Your task to perform on an android device: turn off notifications in google photos Image 0: 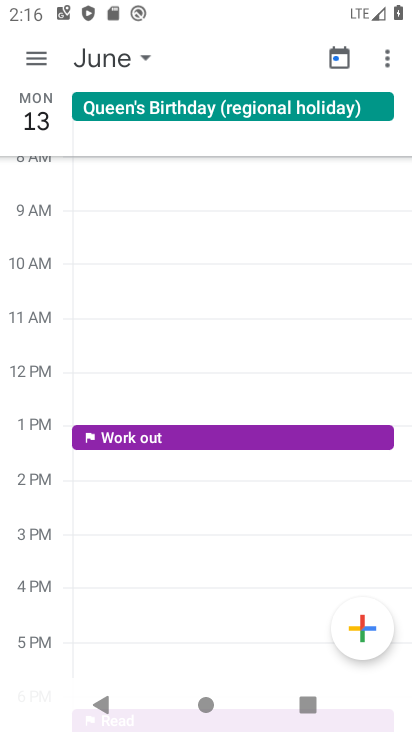
Step 0: press home button
Your task to perform on an android device: turn off notifications in google photos Image 1: 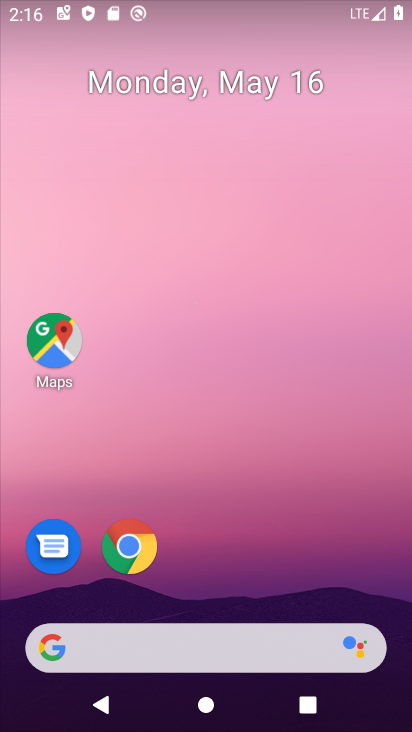
Step 1: drag from (268, 676) to (235, 205)
Your task to perform on an android device: turn off notifications in google photos Image 2: 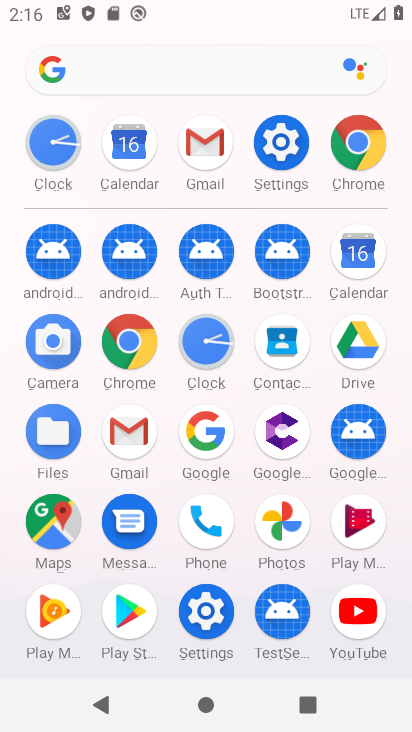
Step 2: click (288, 535)
Your task to perform on an android device: turn off notifications in google photos Image 3: 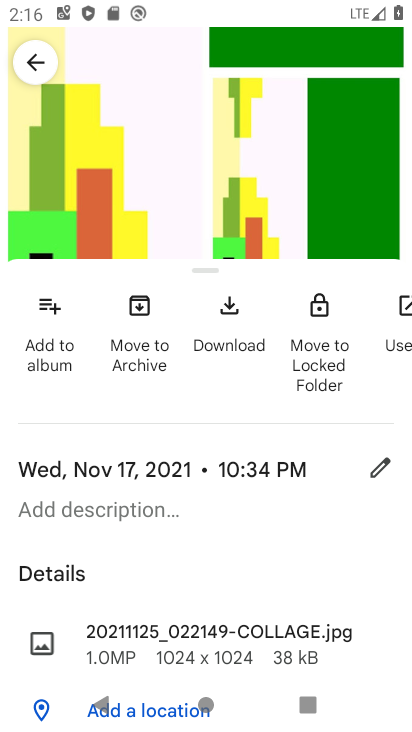
Step 3: click (34, 69)
Your task to perform on an android device: turn off notifications in google photos Image 4: 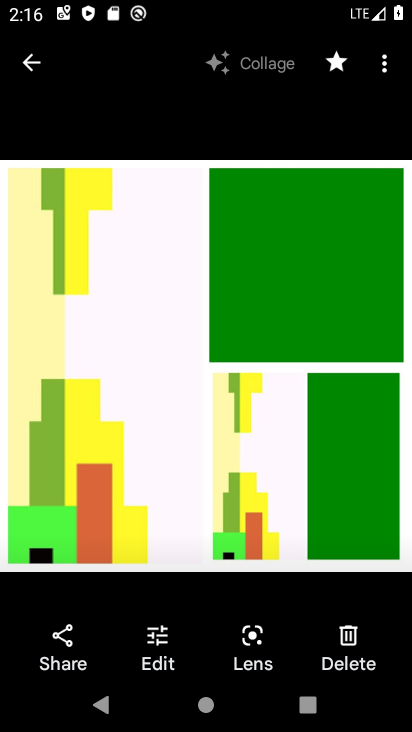
Step 4: click (34, 63)
Your task to perform on an android device: turn off notifications in google photos Image 5: 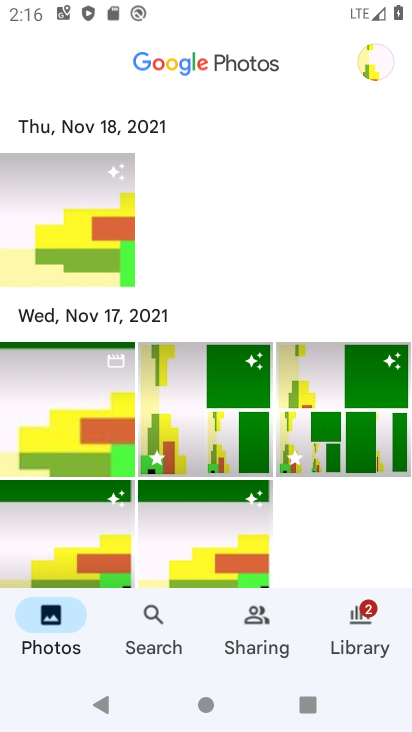
Step 5: click (375, 84)
Your task to perform on an android device: turn off notifications in google photos Image 6: 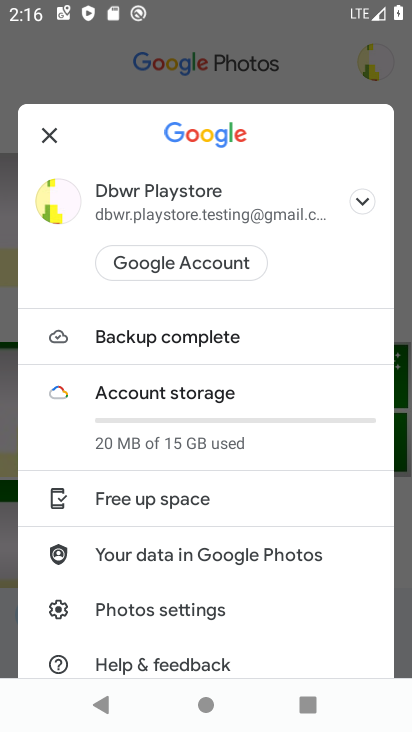
Step 6: click (179, 597)
Your task to perform on an android device: turn off notifications in google photos Image 7: 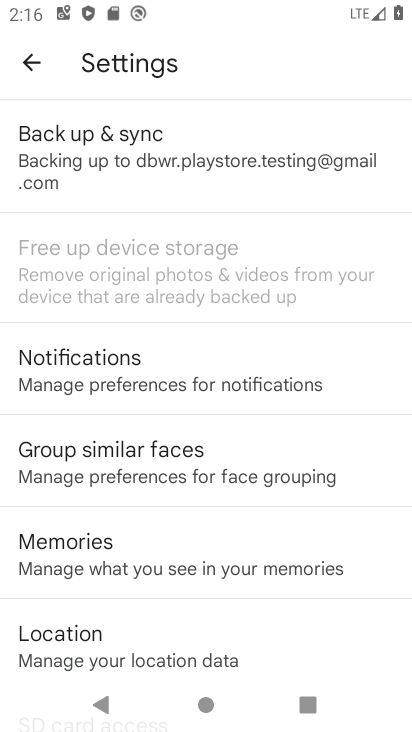
Step 7: click (149, 367)
Your task to perform on an android device: turn off notifications in google photos Image 8: 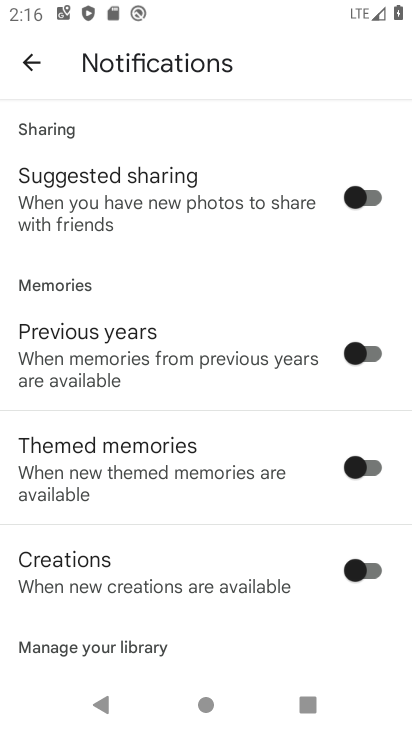
Step 8: drag from (165, 557) to (249, 291)
Your task to perform on an android device: turn off notifications in google photos Image 9: 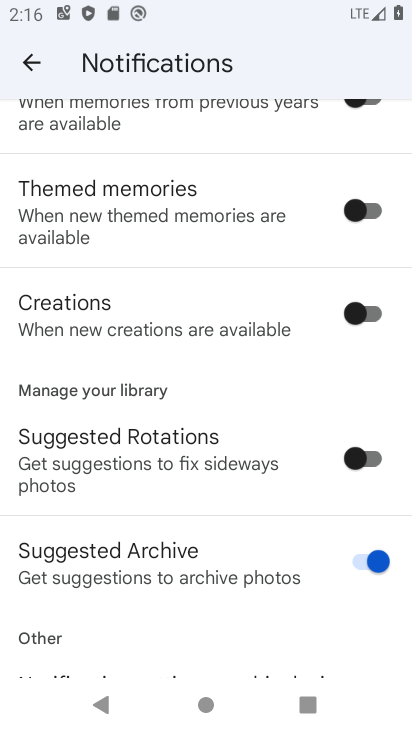
Step 9: drag from (182, 534) to (232, 306)
Your task to perform on an android device: turn off notifications in google photos Image 10: 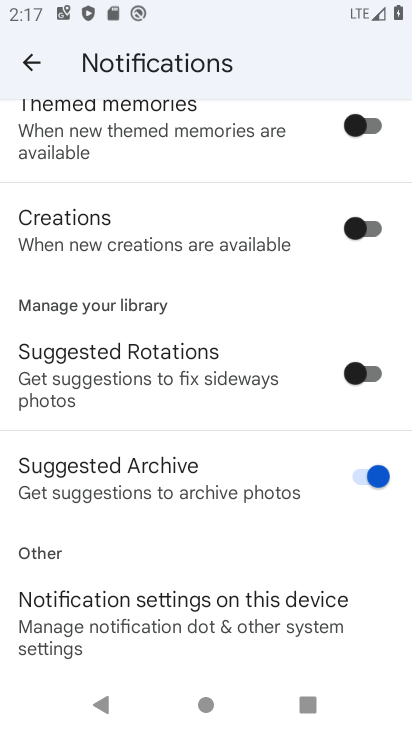
Step 10: click (174, 631)
Your task to perform on an android device: turn off notifications in google photos Image 11: 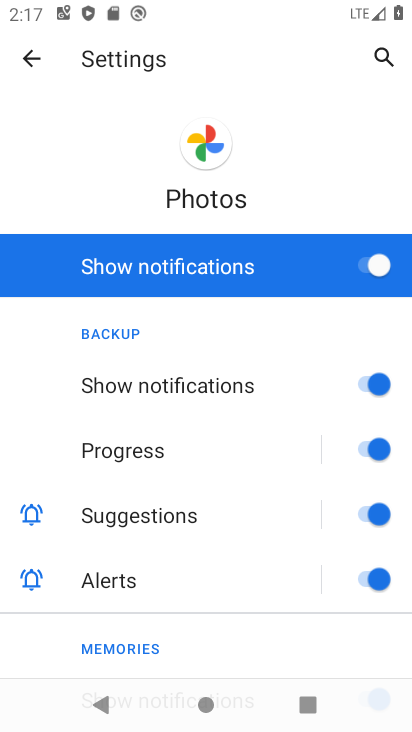
Step 11: click (347, 265)
Your task to perform on an android device: turn off notifications in google photos Image 12: 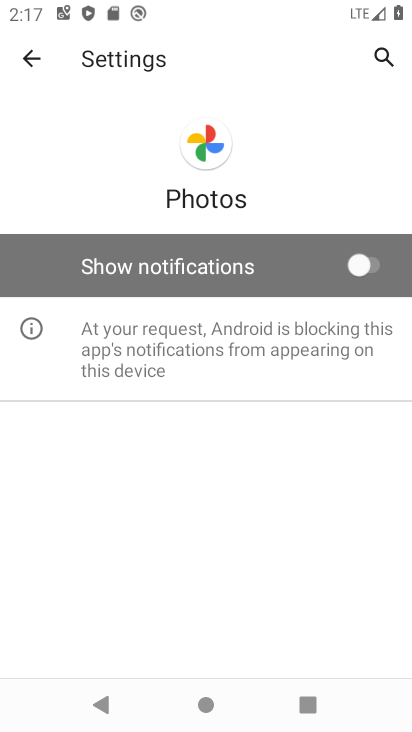
Step 12: task complete